Your task to perform on an android device: open the mobile data screen to see how much data has been used Image 0: 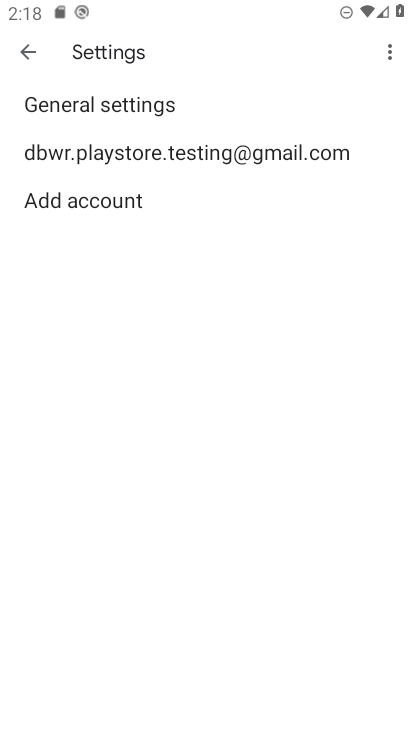
Step 0: press home button
Your task to perform on an android device: open the mobile data screen to see how much data has been used Image 1: 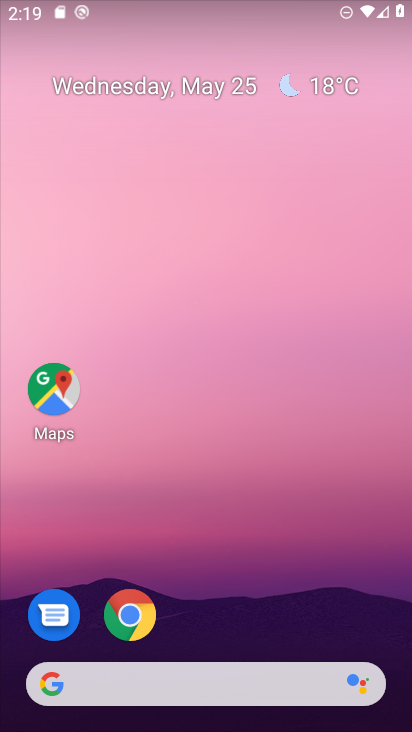
Step 1: drag from (266, 509) to (283, 36)
Your task to perform on an android device: open the mobile data screen to see how much data has been used Image 2: 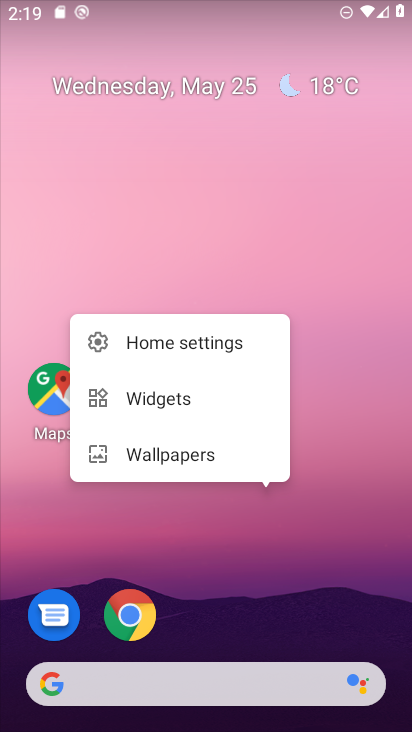
Step 2: click (337, 529)
Your task to perform on an android device: open the mobile data screen to see how much data has been used Image 3: 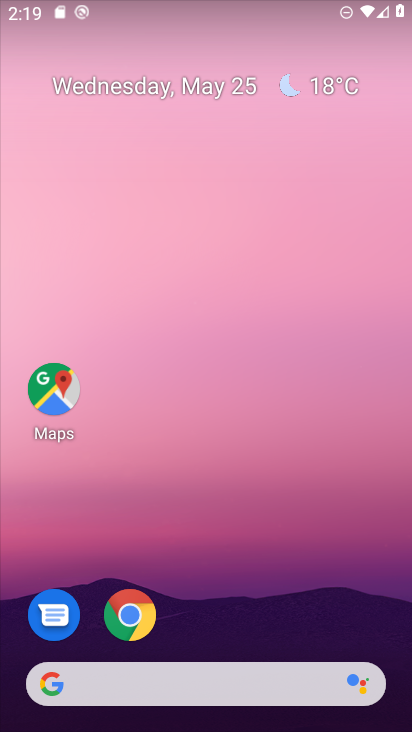
Step 3: drag from (264, 564) to (288, 9)
Your task to perform on an android device: open the mobile data screen to see how much data has been used Image 4: 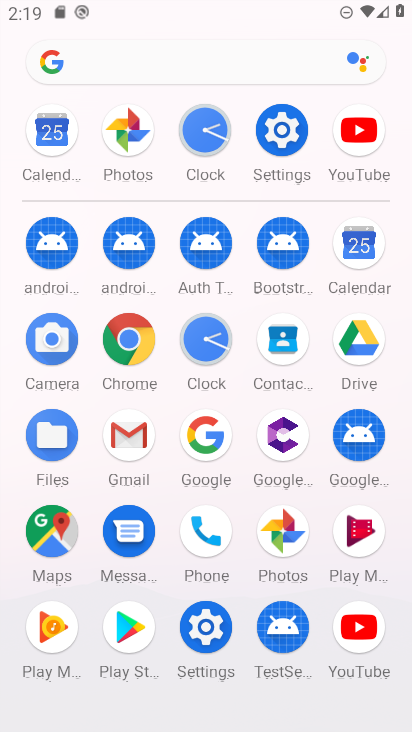
Step 4: click (289, 132)
Your task to perform on an android device: open the mobile data screen to see how much data has been used Image 5: 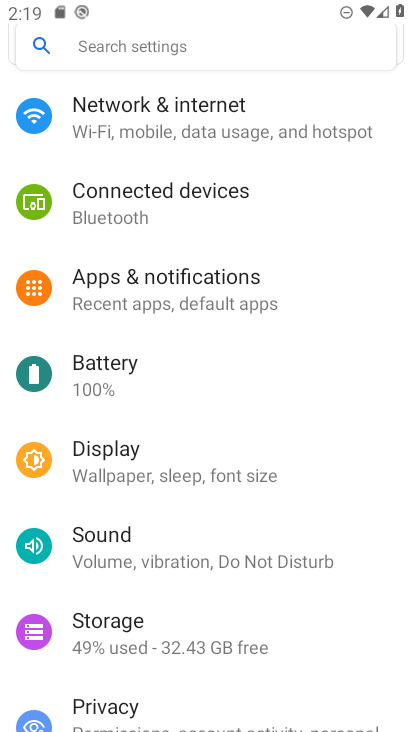
Step 5: click (260, 121)
Your task to perform on an android device: open the mobile data screen to see how much data has been used Image 6: 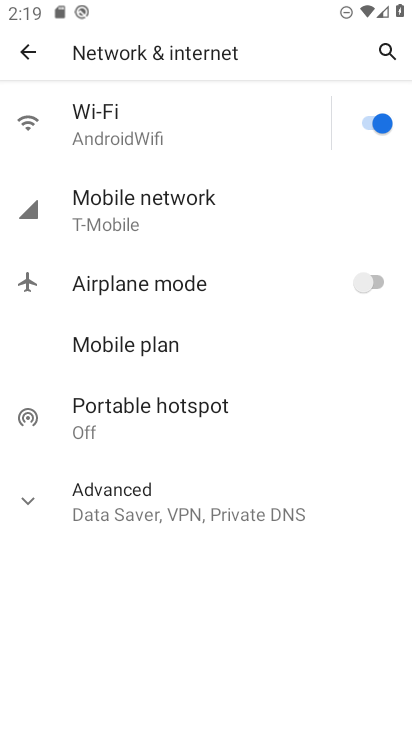
Step 6: click (226, 198)
Your task to perform on an android device: open the mobile data screen to see how much data has been used Image 7: 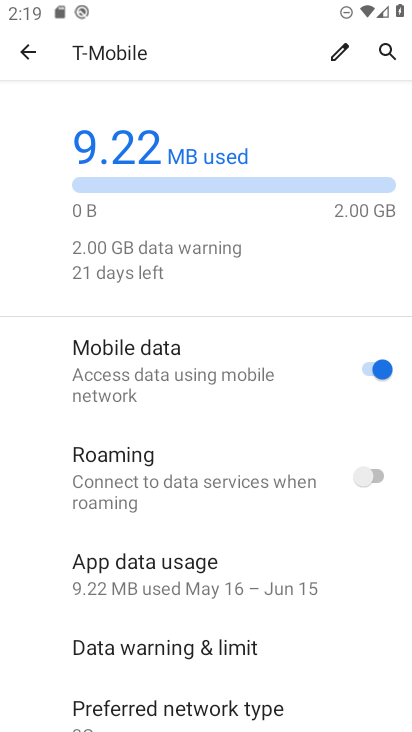
Step 7: task complete